Your task to perform on an android device: Go to sound settings Image 0: 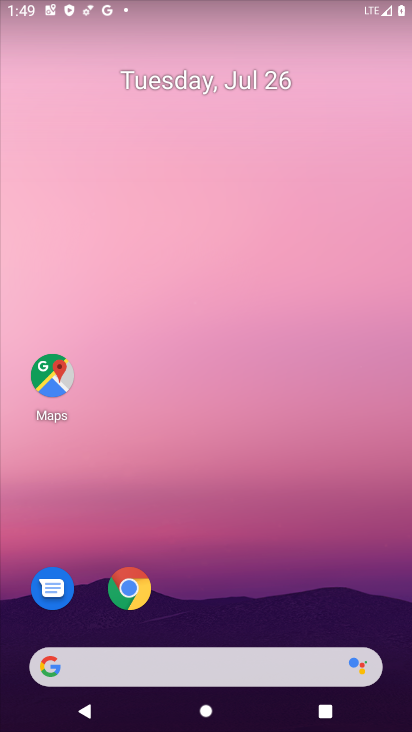
Step 0: drag from (216, 644) to (151, 145)
Your task to perform on an android device: Go to sound settings Image 1: 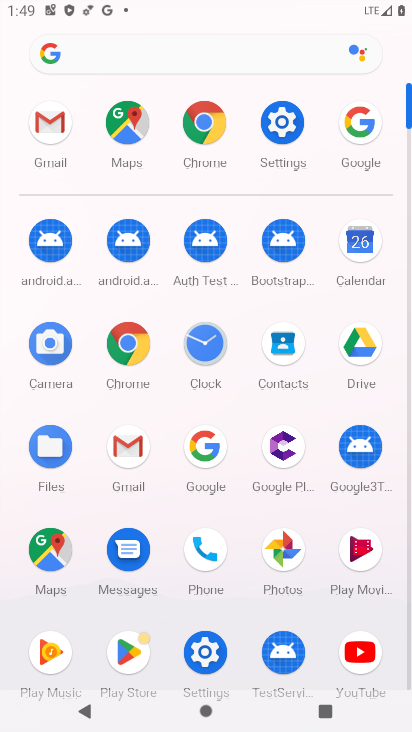
Step 1: click (199, 649)
Your task to perform on an android device: Go to sound settings Image 2: 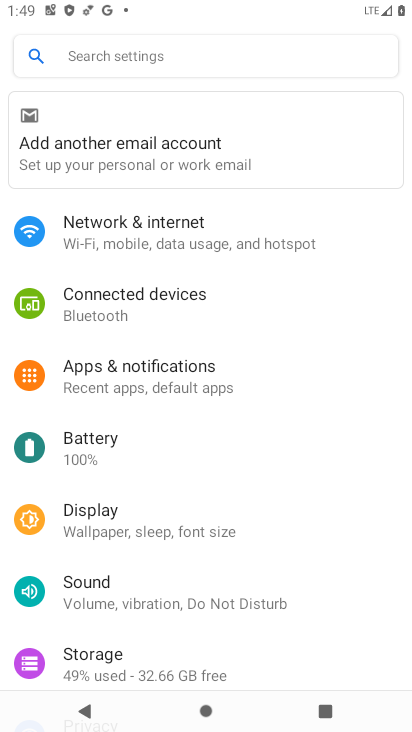
Step 2: click (86, 600)
Your task to perform on an android device: Go to sound settings Image 3: 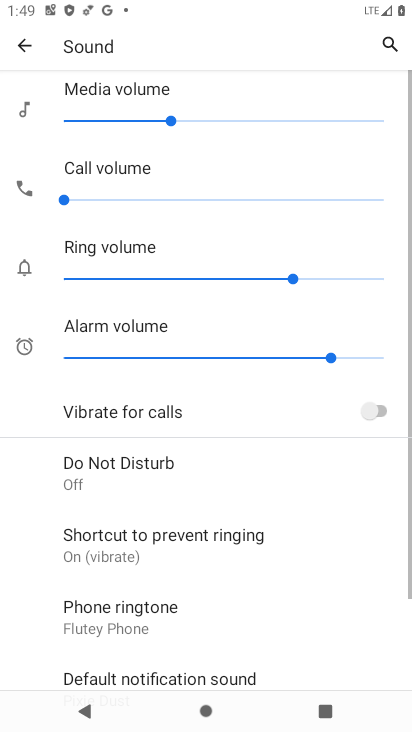
Step 3: drag from (274, 615) to (229, 264)
Your task to perform on an android device: Go to sound settings Image 4: 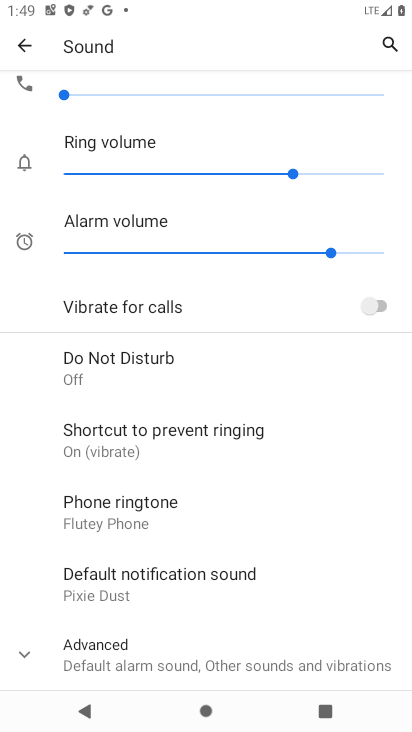
Step 4: click (162, 658)
Your task to perform on an android device: Go to sound settings Image 5: 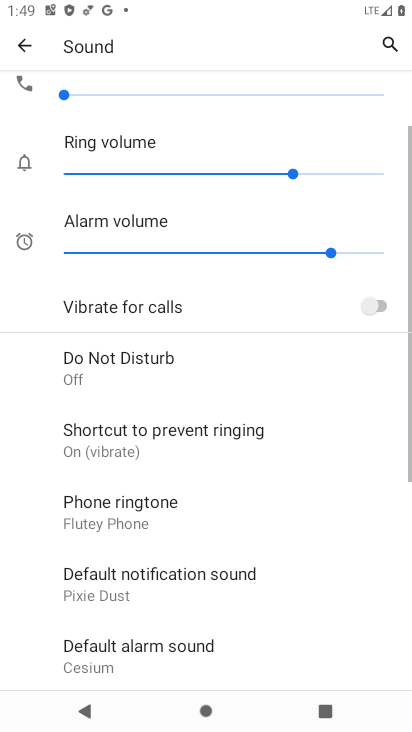
Step 5: task complete